Your task to perform on an android device: toggle translation in the chrome app Image 0: 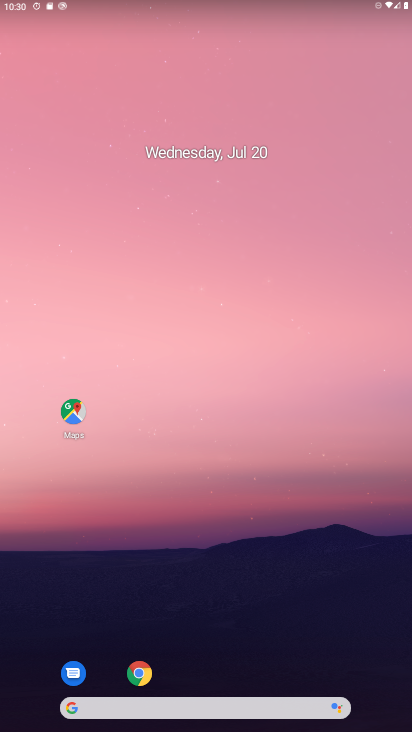
Step 0: drag from (231, 105) to (191, 0)
Your task to perform on an android device: toggle translation in the chrome app Image 1: 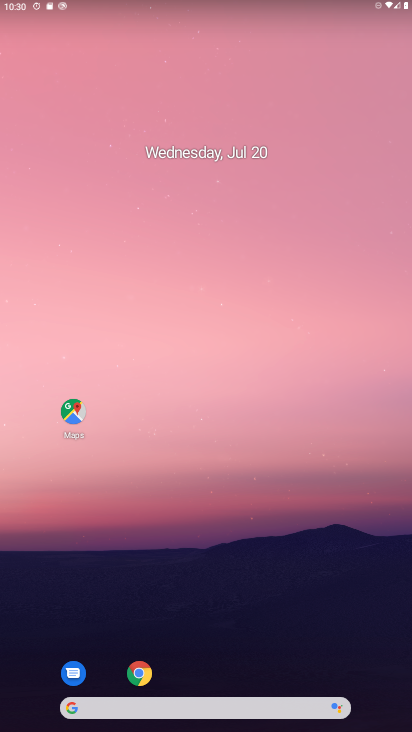
Step 1: drag from (346, 603) to (203, 16)
Your task to perform on an android device: toggle translation in the chrome app Image 2: 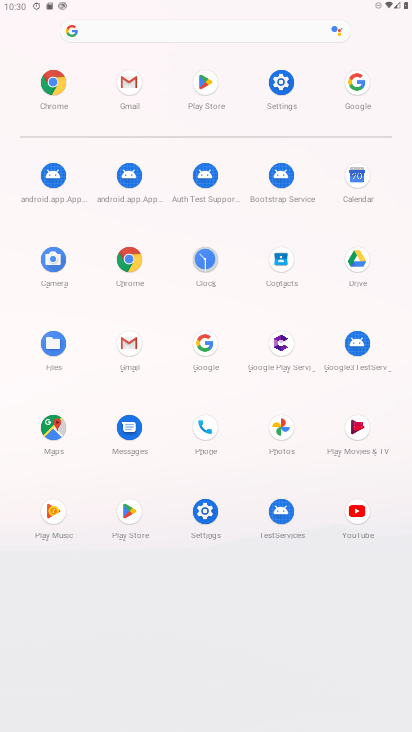
Step 2: click (129, 258)
Your task to perform on an android device: toggle translation in the chrome app Image 3: 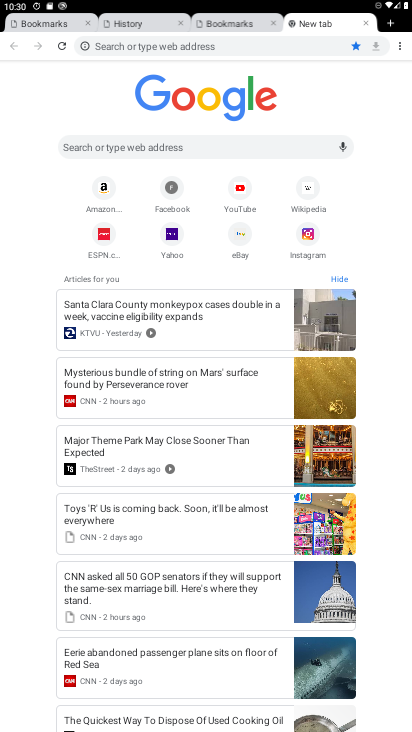
Step 3: click (400, 42)
Your task to perform on an android device: toggle translation in the chrome app Image 4: 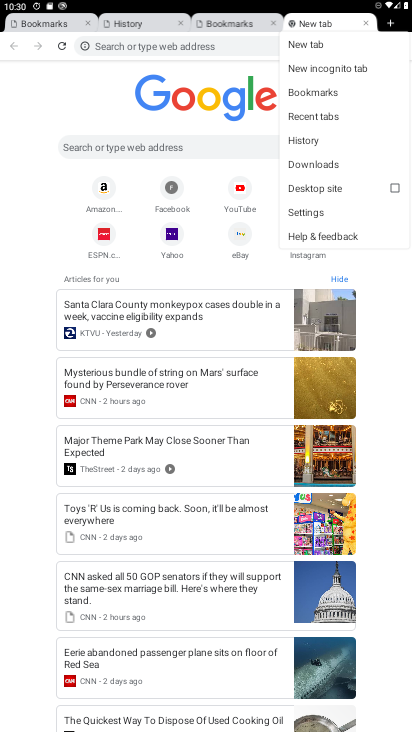
Step 4: click (319, 208)
Your task to perform on an android device: toggle translation in the chrome app Image 5: 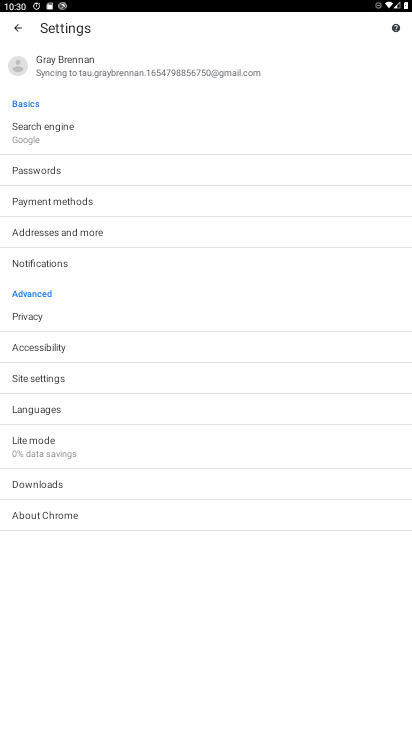
Step 5: click (41, 408)
Your task to perform on an android device: toggle translation in the chrome app Image 6: 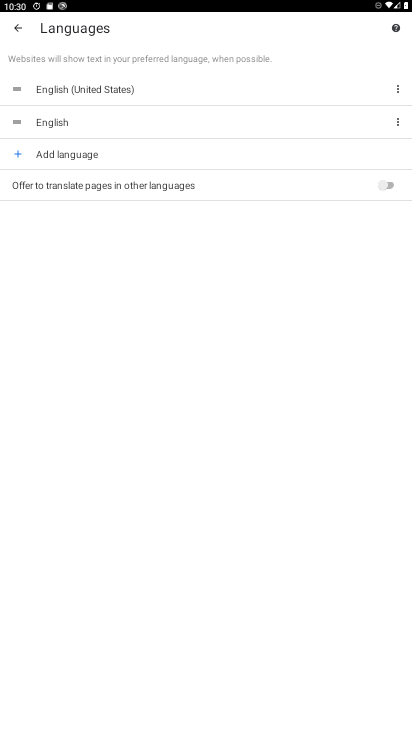
Step 6: click (388, 182)
Your task to perform on an android device: toggle translation in the chrome app Image 7: 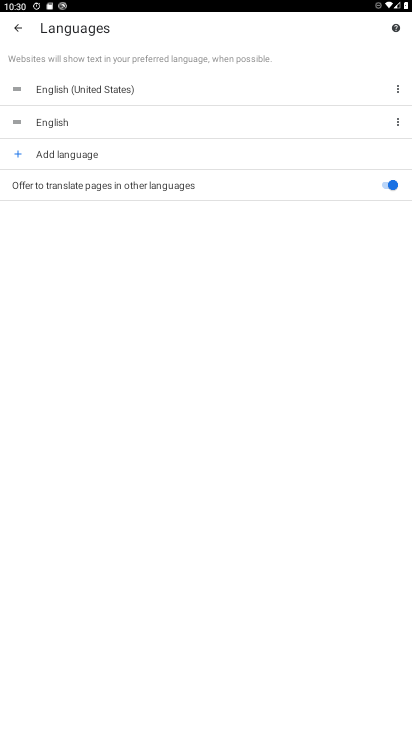
Step 7: task complete